Your task to perform on an android device: Check the news Image 0: 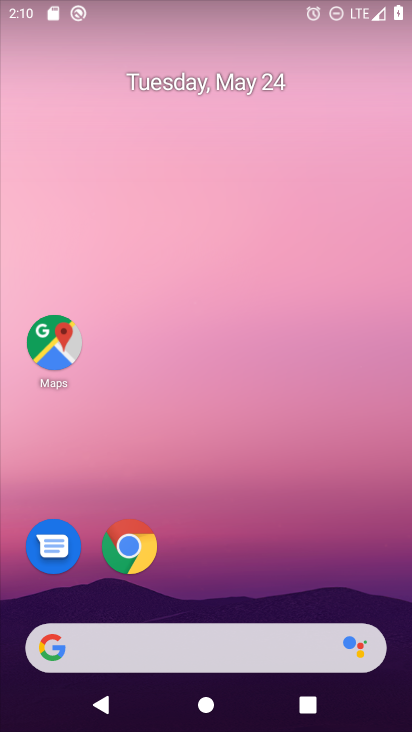
Step 0: drag from (188, 640) to (269, 90)
Your task to perform on an android device: Check the news Image 1: 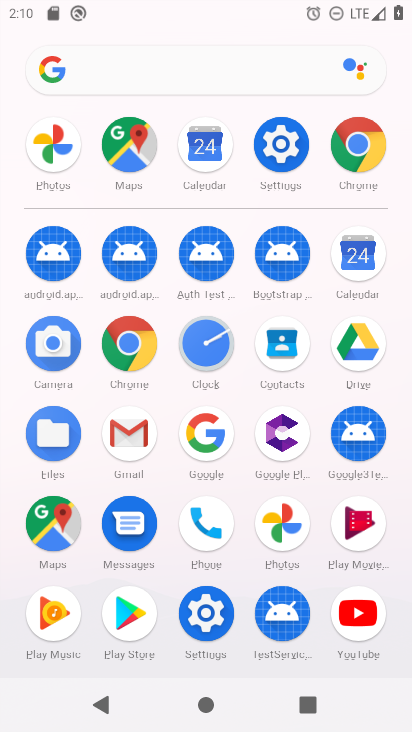
Step 1: click (140, 340)
Your task to perform on an android device: Check the news Image 2: 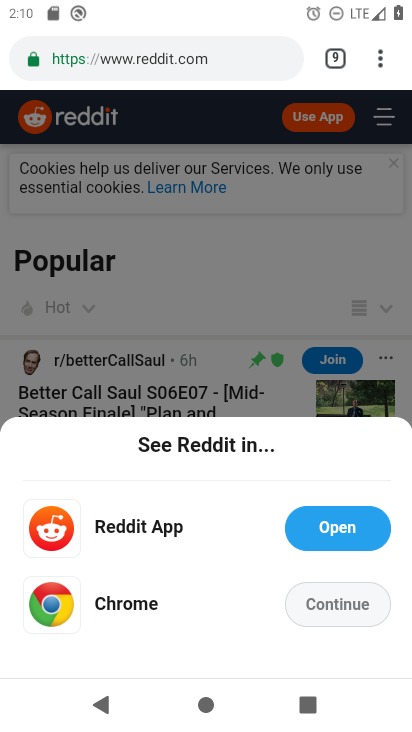
Step 2: click (221, 61)
Your task to perform on an android device: Check the news Image 3: 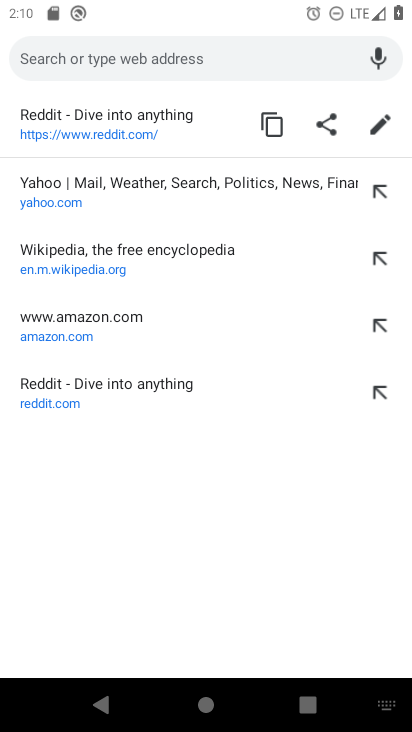
Step 3: type "news"
Your task to perform on an android device: Check the news Image 4: 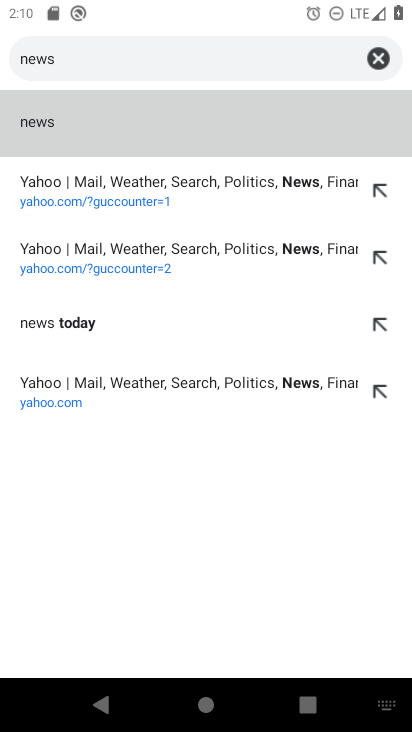
Step 4: click (84, 119)
Your task to perform on an android device: Check the news Image 5: 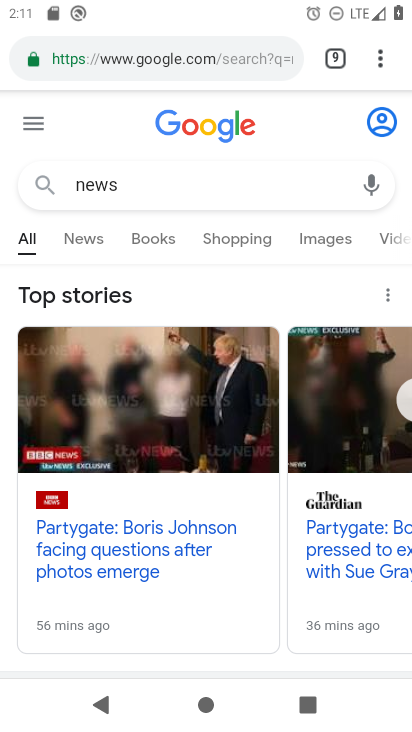
Step 5: task complete